Your task to perform on an android device: turn off improve location accuracy Image 0: 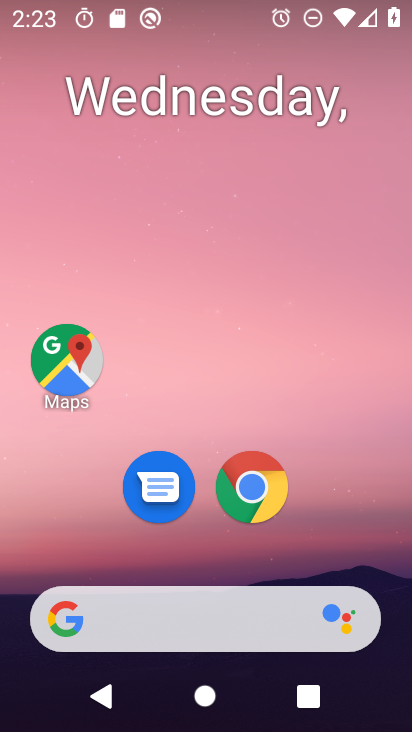
Step 0: drag from (236, 528) to (339, 0)
Your task to perform on an android device: turn off improve location accuracy Image 1: 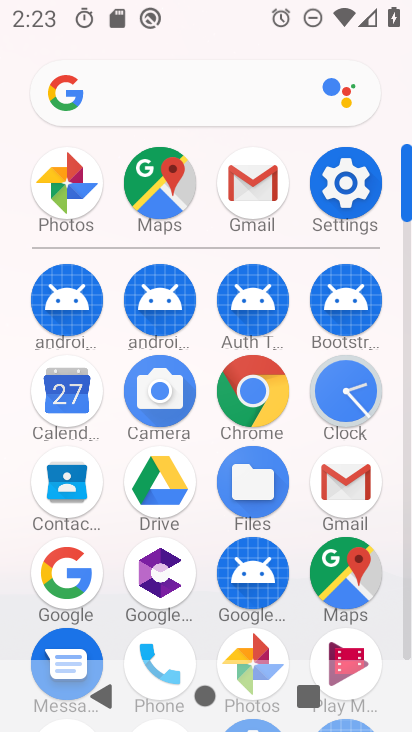
Step 1: click (359, 225)
Your task to perform on an android device: turn off improve location accuracy Image 2: 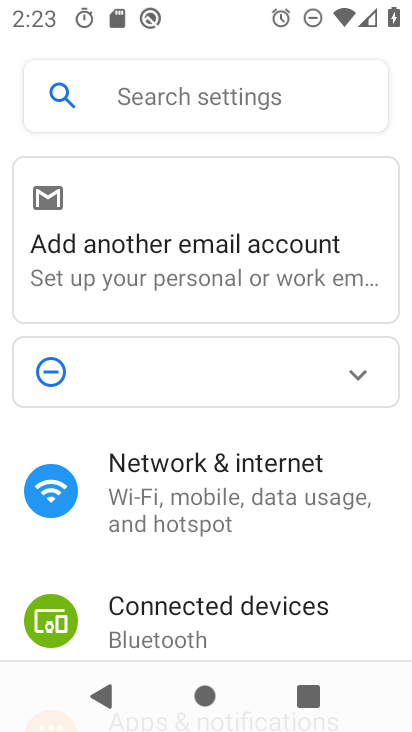
Step 2: drag from (254, 632) to (327, 89)
Your task to perform on an android device: turn off improve location accuracy Image 3: 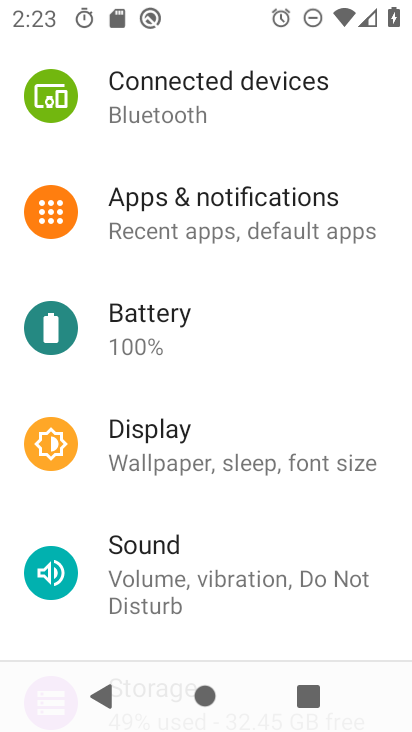
Step 3: drag from (242, 560) to (320, 0)
Your task to perform on an android device: turn off improve location accuracy Image 4: 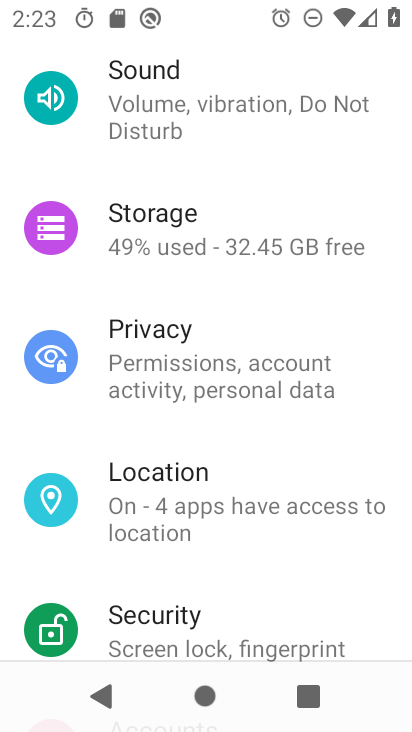
Step 4: click (210, 482)
Your task to perform on an android device: turn off improve location accuracy Image 5: 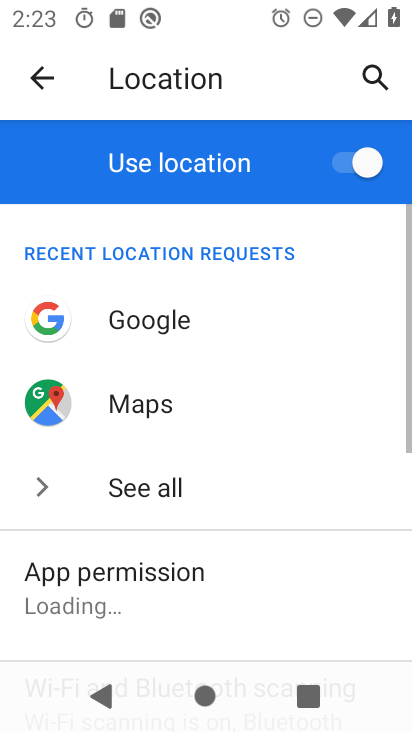
Step 5: drag from (165, 635) to (277, 80)
Your task to perform on an android device: turn off improve location accuracy Image 6: 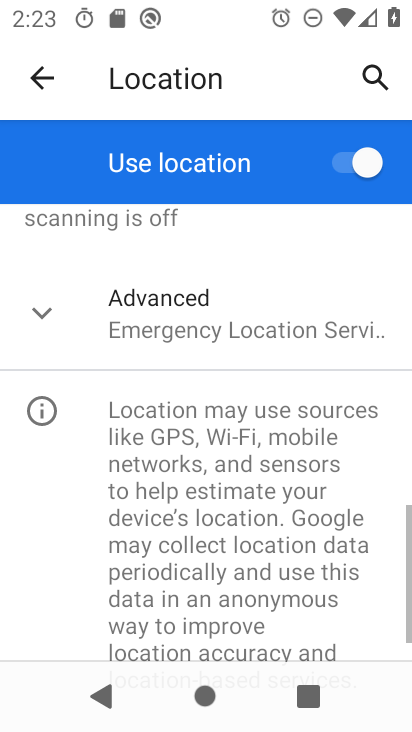
Step 6: click (155, 301)
Your task to perform on an android device: turn off improve location accuracy Image 7: 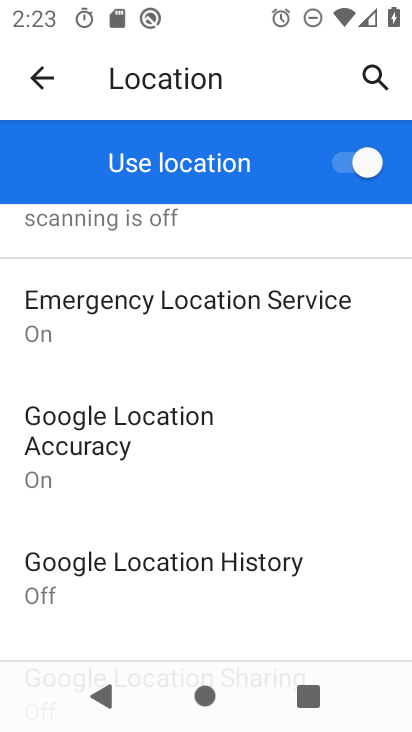
Step 7: click (138, 424)
Your task to perform on an android device: turn off improve location accuracy Image 8: 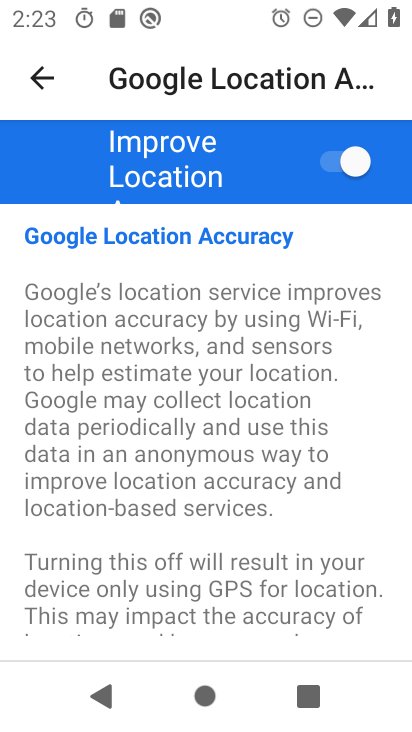
Step 8: click (348, 158)
Your task to perform on an android device: turn off improve location accuracy Image 9: 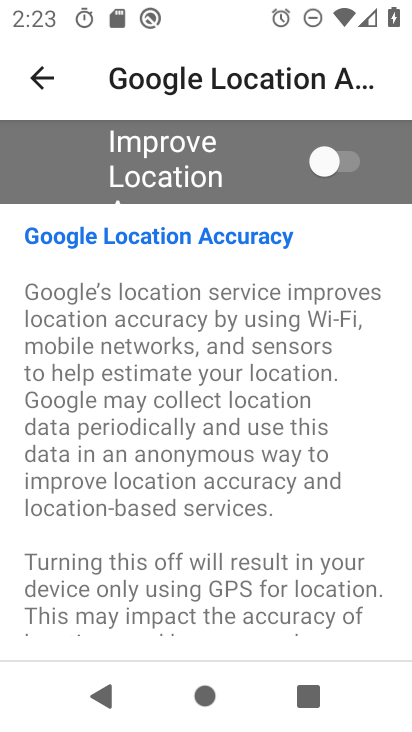
Step 9: task complete